Your task to perform on an android device: Search for Italian restaurants on Maps Image 0: 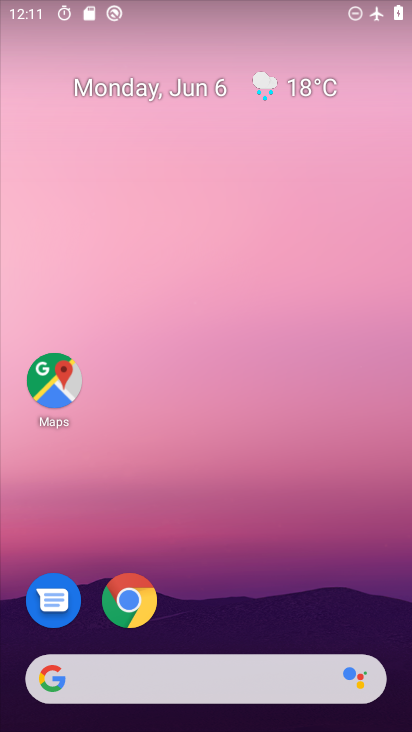
Step 0: click (52, 393)
Your task to perform on an android device: Search for Italian restaurants on Maps Image 1: 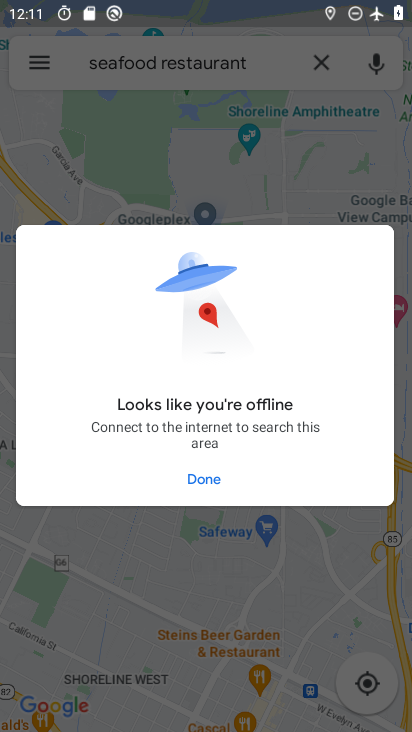
Step 1: task complete